Your task to perform on an android device: choose inbox layout in the gmail app Image 0: 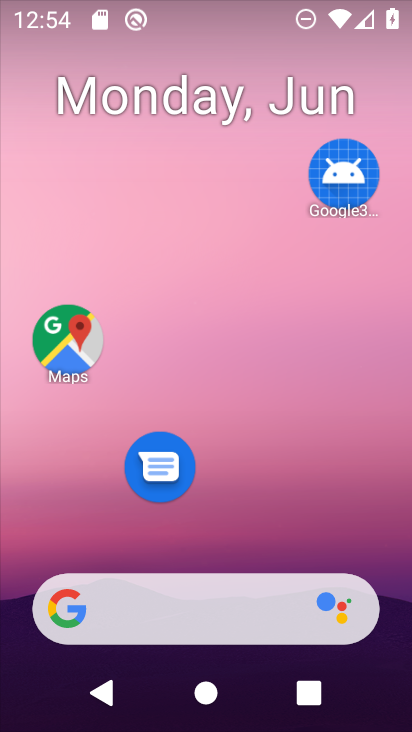
Step 0: drag from (371, 561) to (277, 134)
Your task to perform on an android device: choose inbox layout in the gmail app Image 1: 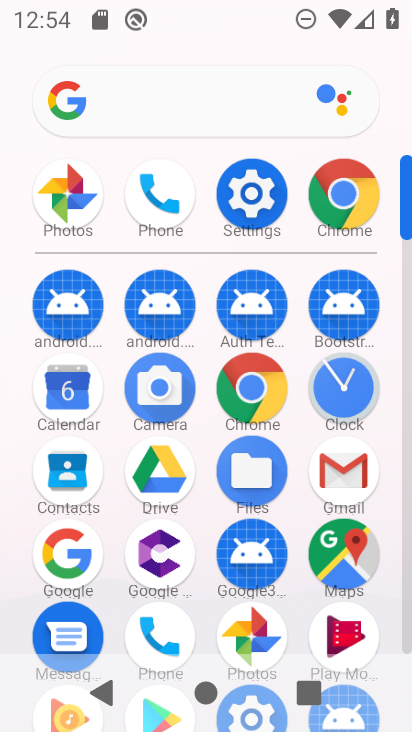
Step 1: click (349, 473)
Your task to perform on an android device: choose inbox layout in the gmail app Image 2: 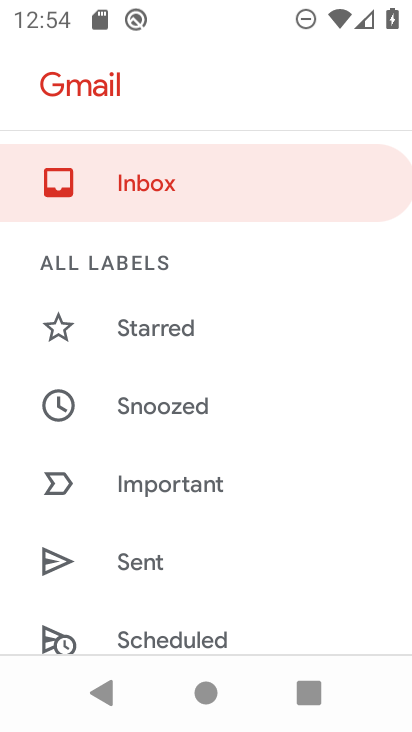
Step 2: drag from (243, 557) to (352, 162)
Your task to perform on an android device: choose inbox layout in the gmail app Image 3: 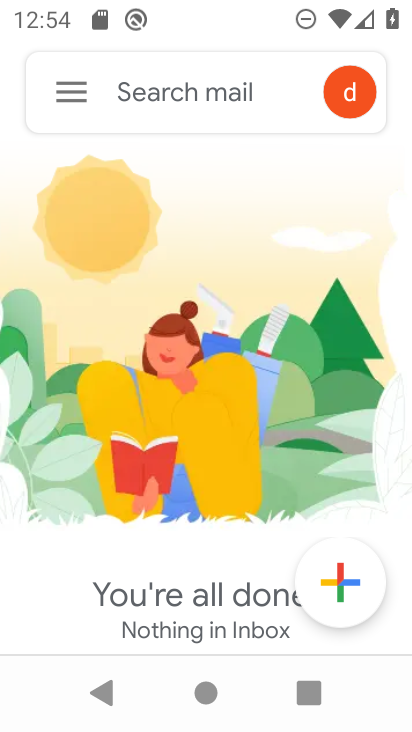
Step 3: click (68, 88)
Your task to perform on an android device: choose inbox layout in the gmail app Image 4: 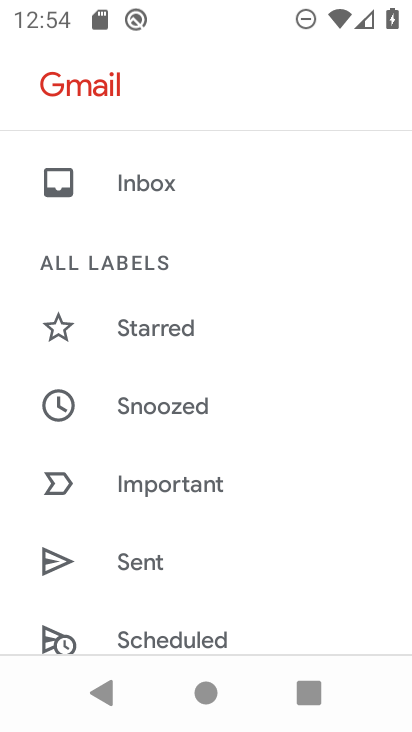
Step 4: drag from (149, 609) to (229, 329)
Your task to perform on an android device: choose inbox layout in the gmail app Image 5: 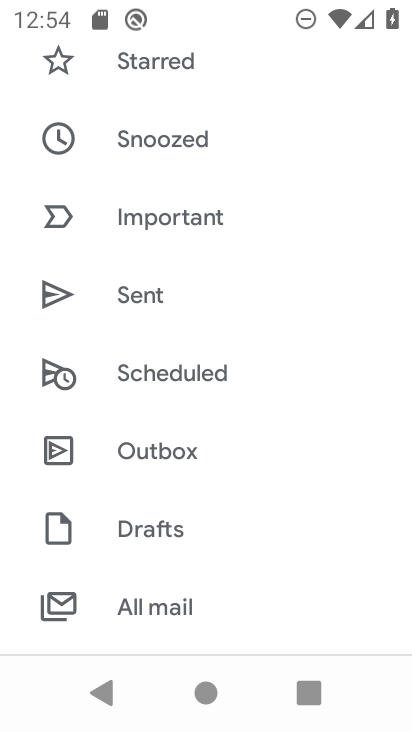
Step 5: drag from (209, 585) to (264, 167)
Your task to perform on an android device: choose inbox layout in the gmail app Image 6: 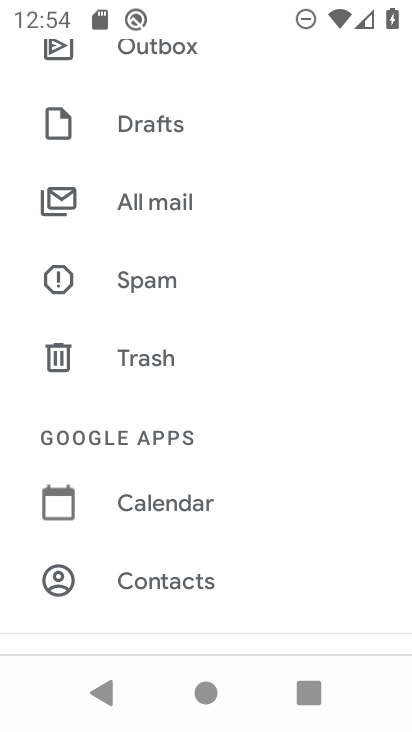
Step 6: drag from (199, 591) to (291, 183)
Your task to perform on an android device: choose inbox layout in the gmail app Image 7: 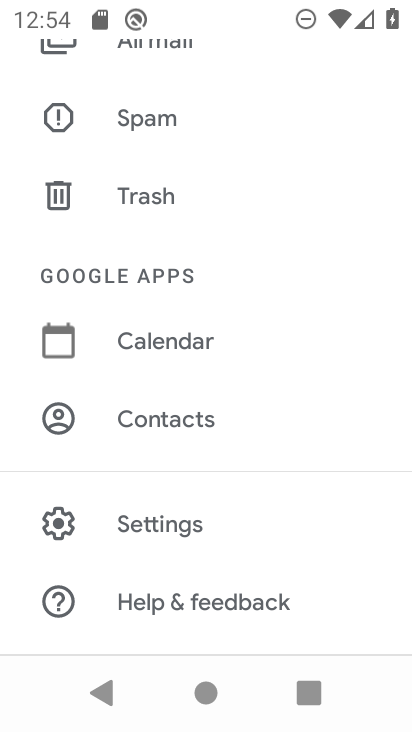
Step 7: click (206, 527)
Your task to perform on an android device: choose inbox layout in the gmail app Image 8: 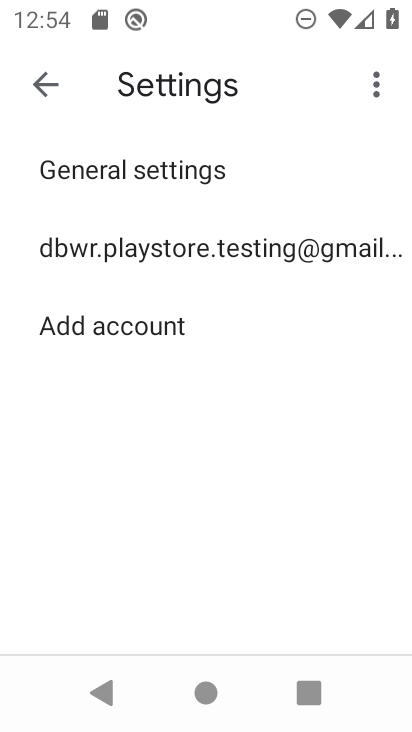
Step 8: click (321, 250)
Your task to perform on an android device: choose inbox layout in the gmail app Image 9: 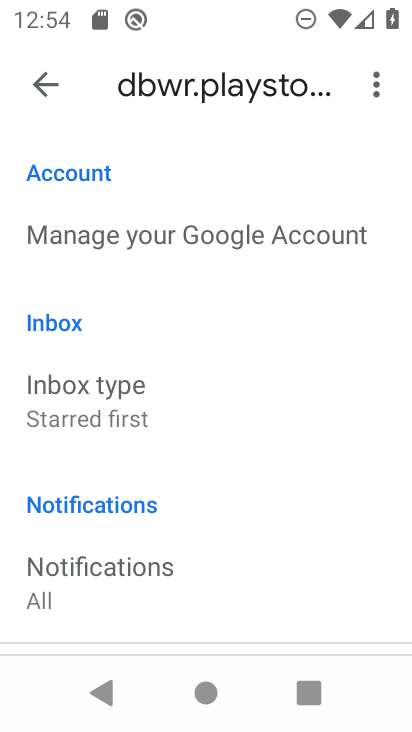
Step 9: click (147, 403)
Your task to perform on an android device: choose inbox layout in the gmail app Image 10: 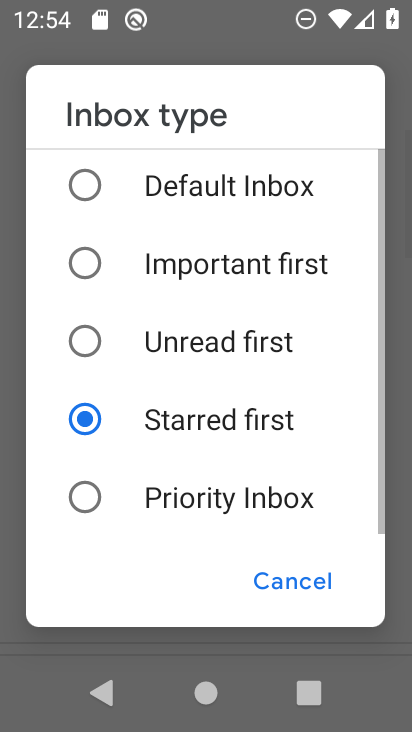
Step 10: click (132, 501)
Your task to perform on an android device: choose inbox layout in the gmail app Image 11: 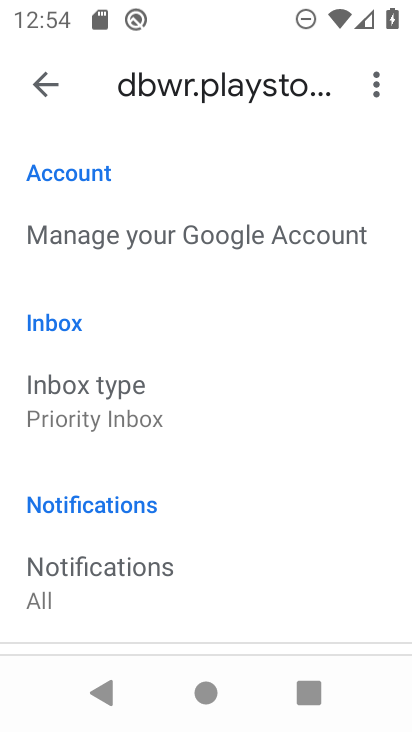
Step 11: task complete